Your task to perform on an android device: check android version Image 0: 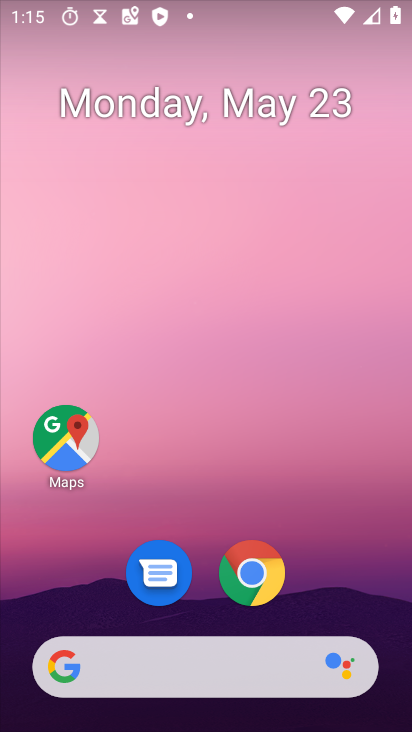
Step 0: press home button
Your task to perform on an android device: check android version Image 1: 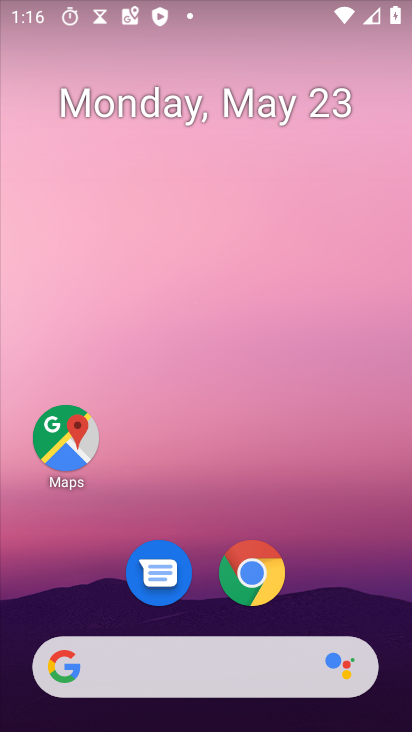
Step 1: drag from (197, 673) to (259, 106)
Your task to perform on an android device: check android version Image 2: 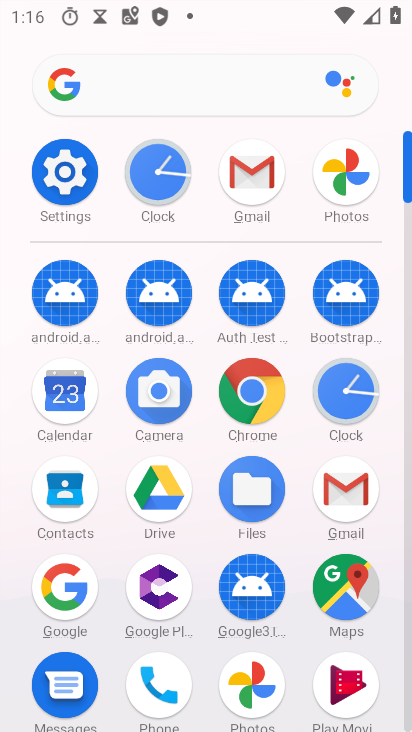
Step 2: click (61, 175)
Your task to perform on an android device: check android version Image 3: 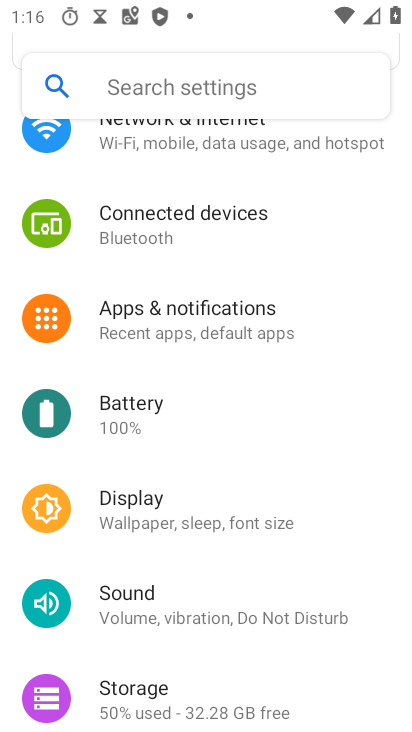
Step 3: drag from (249, 643) to (309, 36)
Your task to perform on an android device: check android version Image 4: 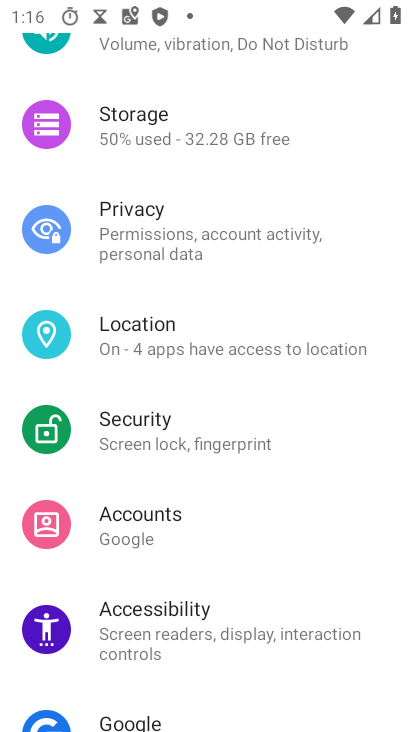
Step 4: drag from (253, 610) to (353, 89)
Your task to perform on an android device: check android version Image 5: 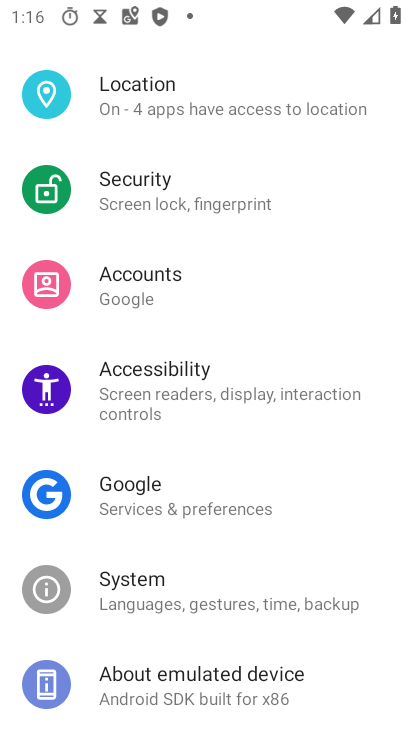
Step 5: click (217, 686)
Your task to perform on an android device: check android version Image 6: 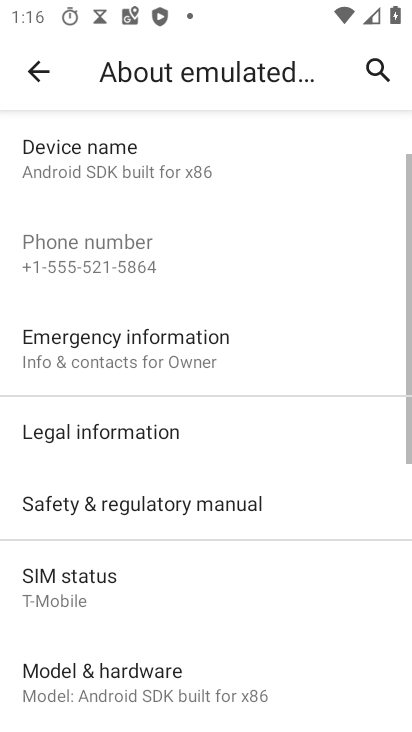
Step 6: drag from (231, 633) to (328, 135)
Your task to perform on an android device: check android version Image 7: 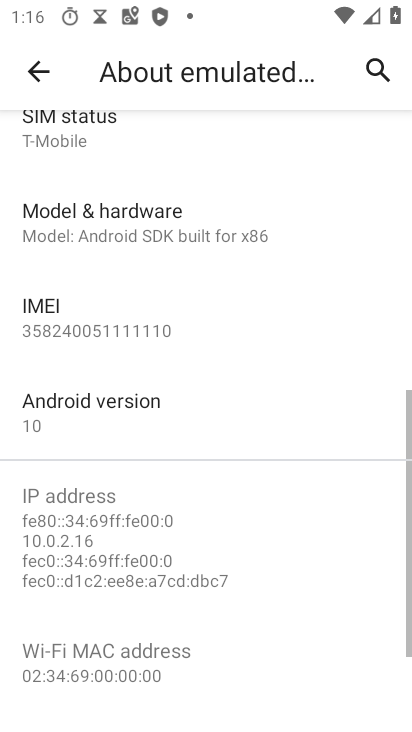
Step 7: click (125, 423)
Your task to perform on an android device: check android version Image 8: 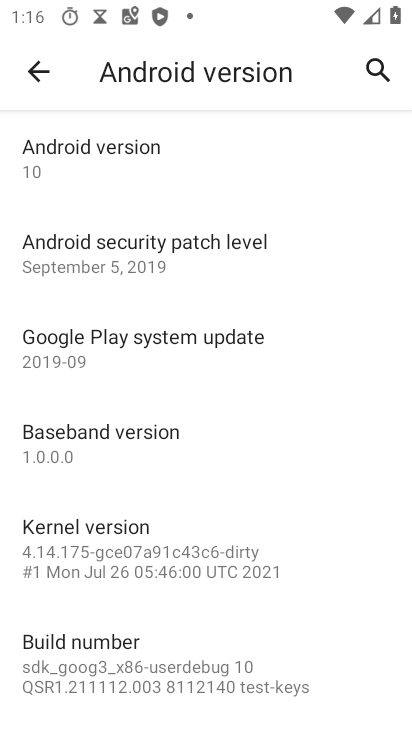
Step 8: task complete